Your task to perform on an android device: open app "Adobe Acrobat Reader: Edit PDF" (install if not already installed) Image 0: 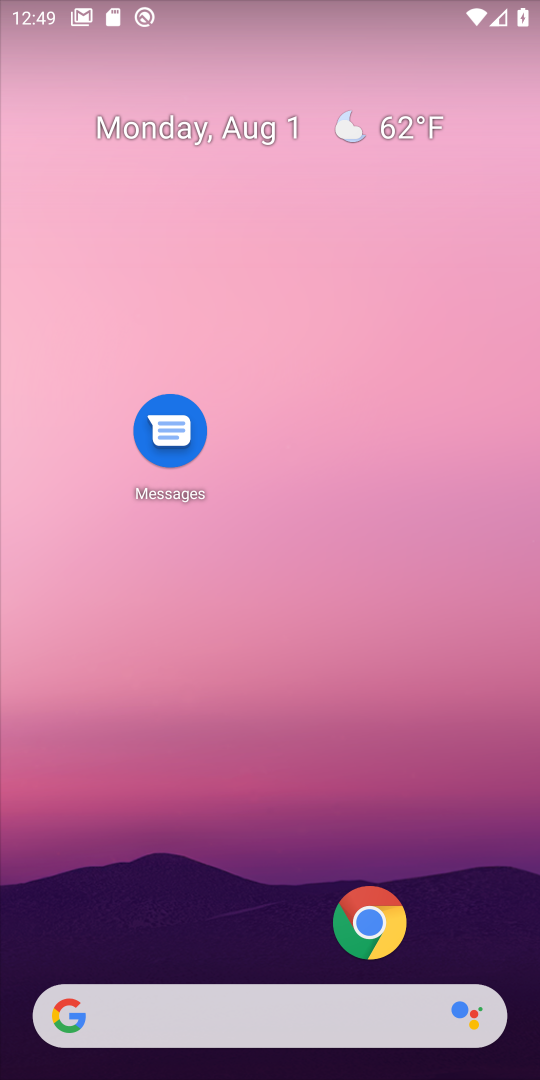
Step 0: drag from (255, 861) to (233, 223)
Your task to perform on an android device: open app "Adobe Acrobat Reader: Edit PDF" (install if not already installed) Image 1: 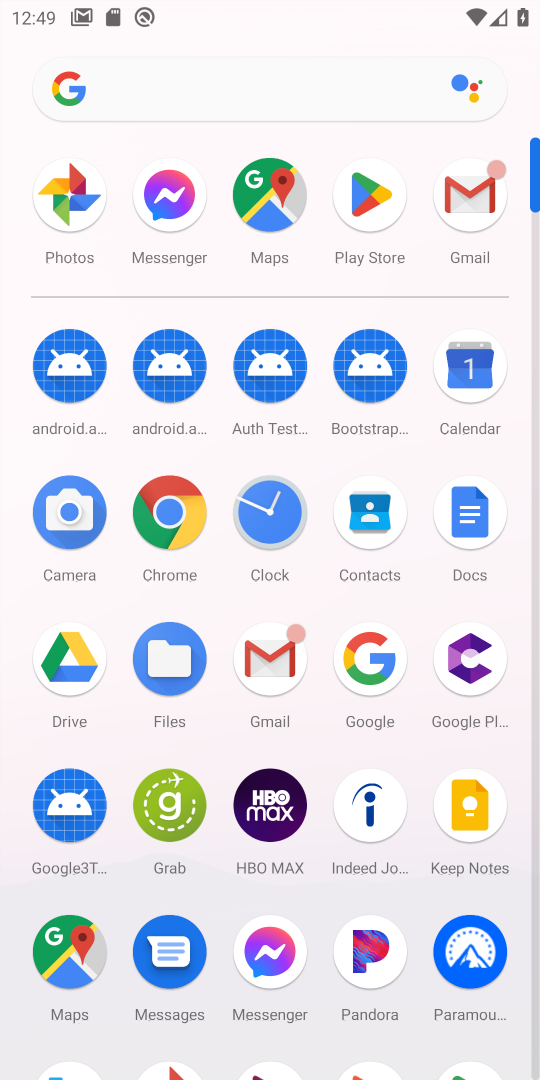
Step 1: click (375, 207)
Your task to perform on an android device: open app "Adobe Acrobat Reader: Edit PDF" (install if not already installed) Image 2: 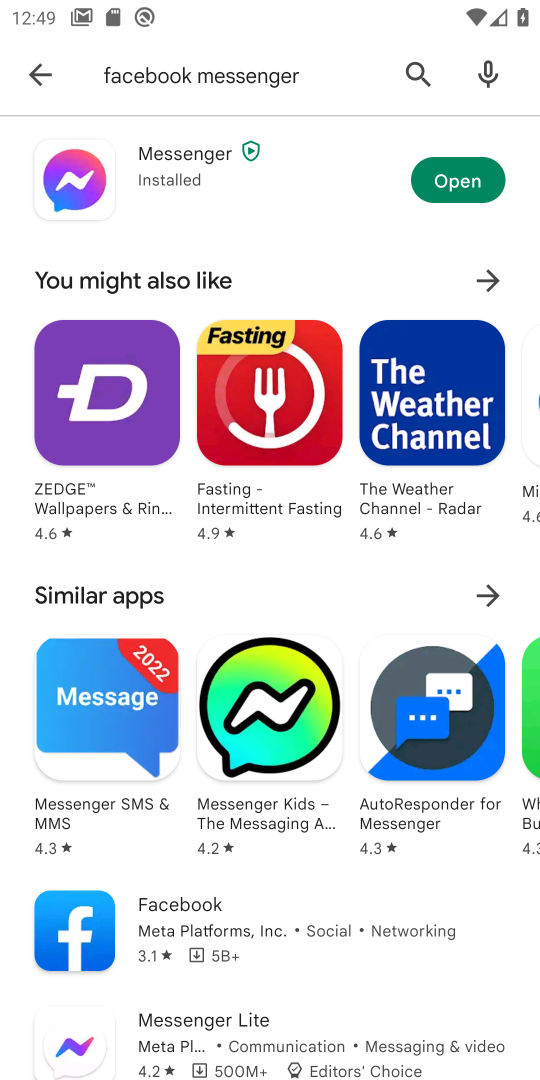
Step 2: click (434, 93)
Your task to perform on an android device: open app "Adobe Acrobat Reader: Edit PDF" (install if not already installed) Image 3: 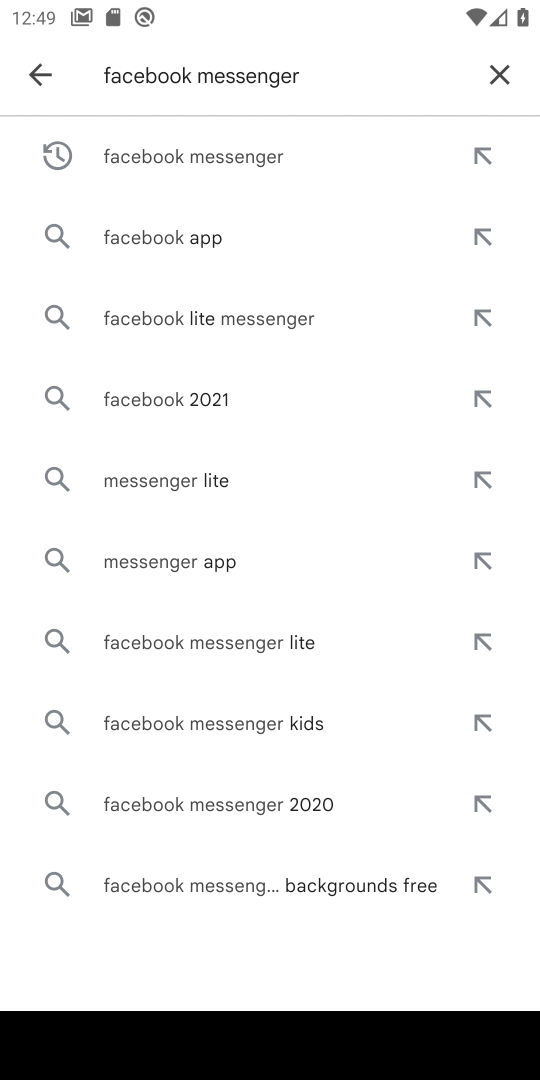
Step 3: click (490, 81)
Your task to perform on an android device: open app "Adobe Acrobat Reader: Edit PDF" (install if not already installed) Image 4: 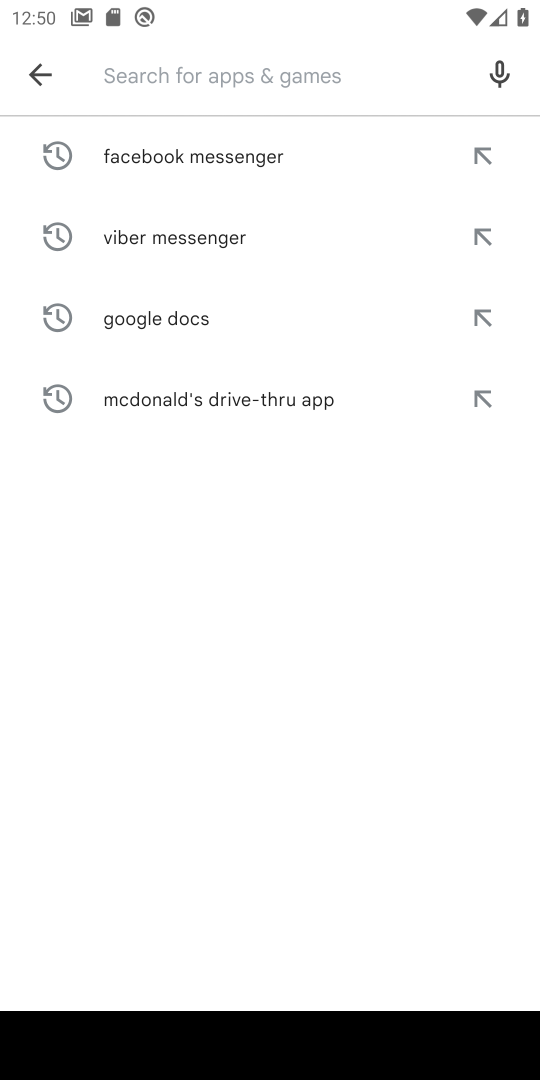
Step 4: type "Adobe Acrobat Reader: Edit PDF"
Your task to perform on an android device: open app "Adobe Acrobat Reader: Edit PDF" (install if not already installed) Image 5: 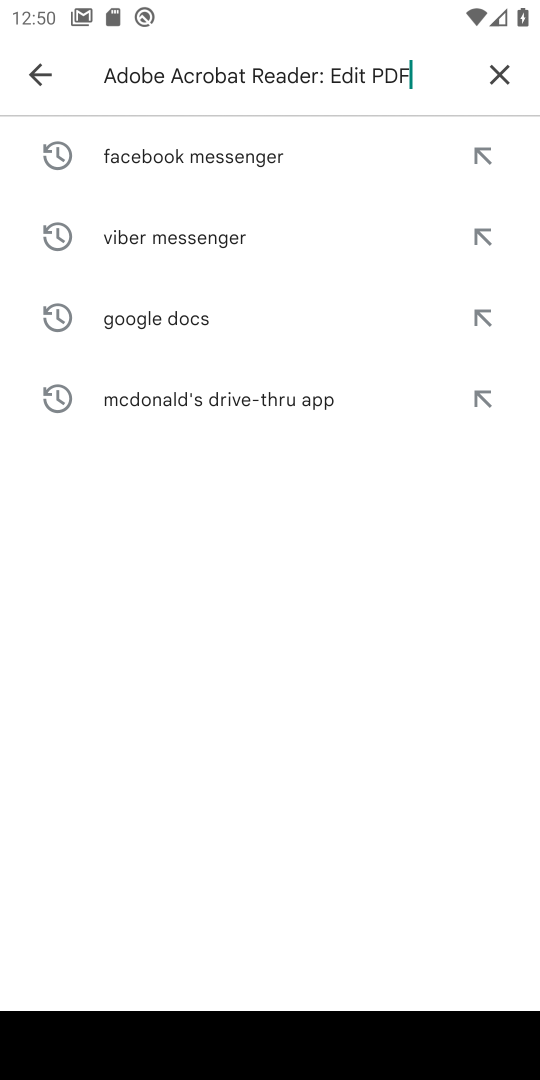
Step 5: type ""
Your task to perform on an android device: open app "Adobe Acrobat Reader: Edit PDF" (install if not already installed) Image 6: 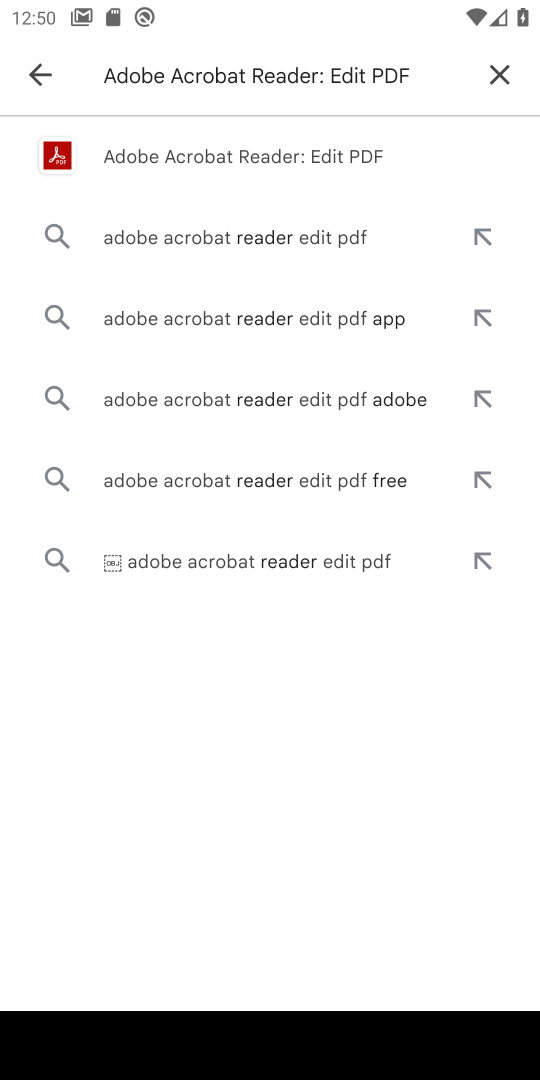
Step 6: click (192, 167)
Your task to perform on an android device: open app "Adobe Acrobat Reader: Edit PDF" (install if not already installed) Image 7: 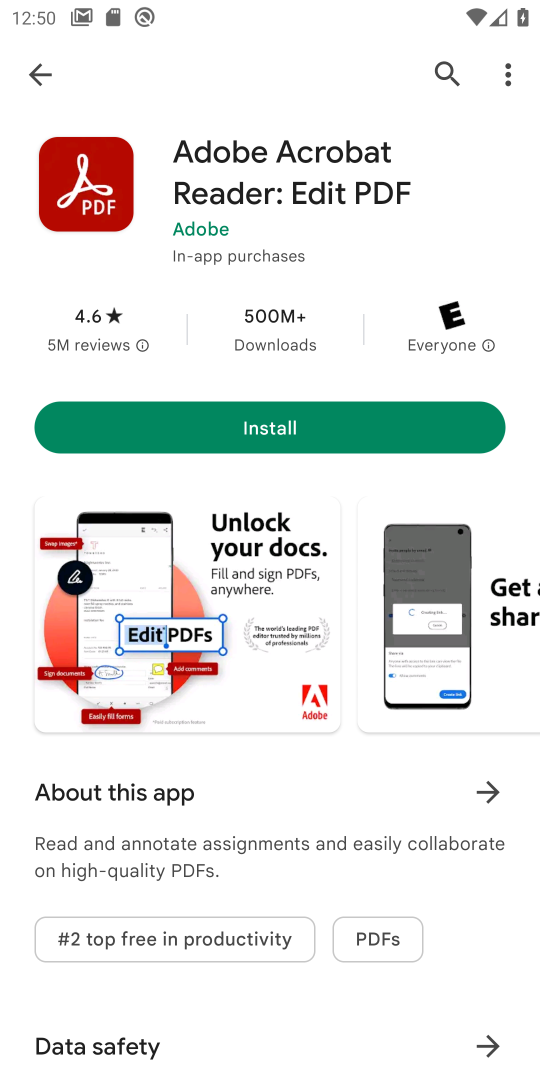
Step 7: click (364, 429)
Your task to perform on an android device: open app "Adobe Acrobat Reader: Edit PDF" (install if not already installed) Image 8: 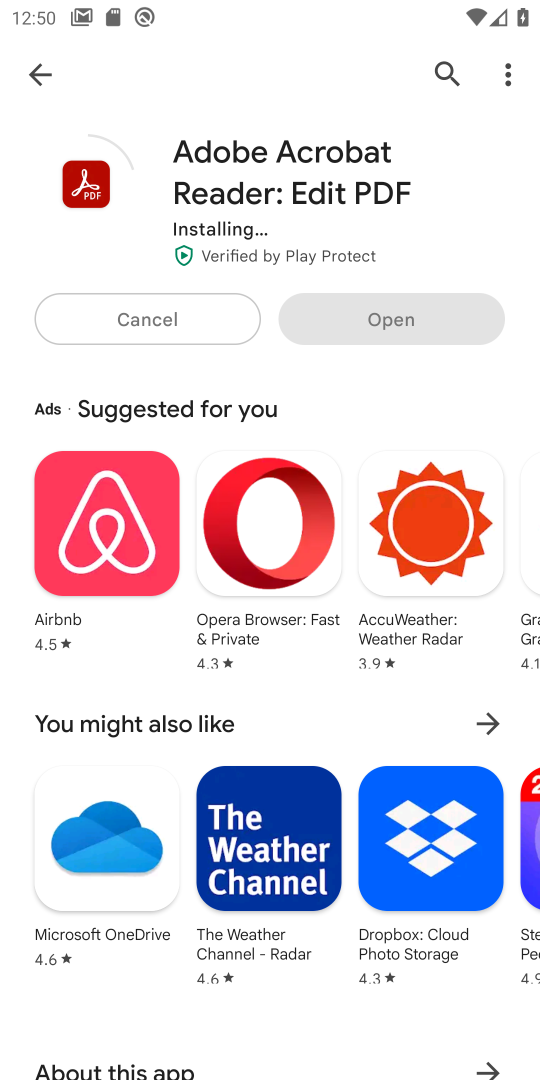
Step 8: click (426, 74)
Your task to perform on an android device: open app "Adobe Acrobat Reader: Edit PDF" (install if not already installed) Image 9: 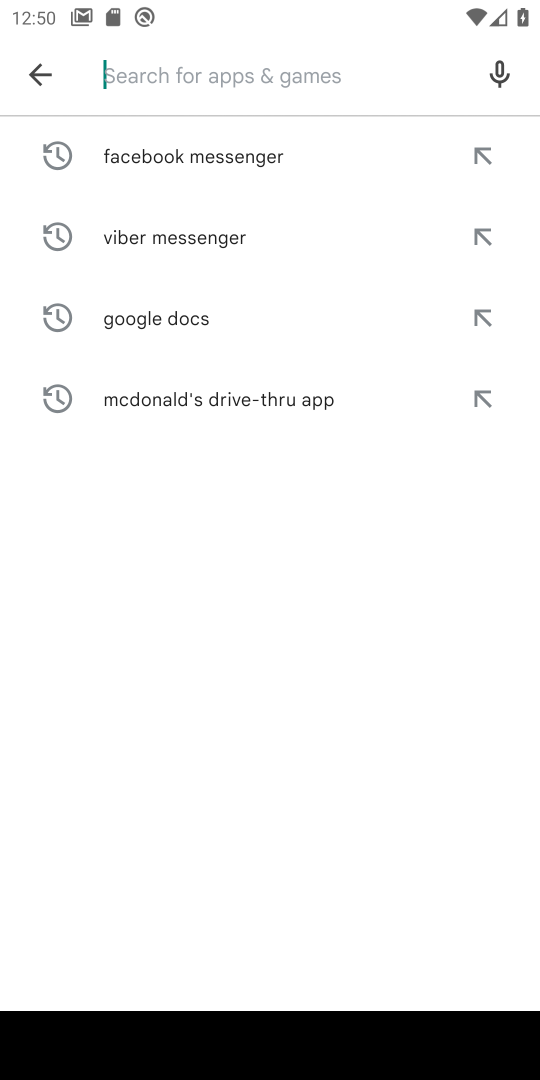
Step 9: click (54, 71)
Your task to perform on an android device: open app "Adobe Acrobat Reader: Edit PDF" (install if not already installed) Image 10: 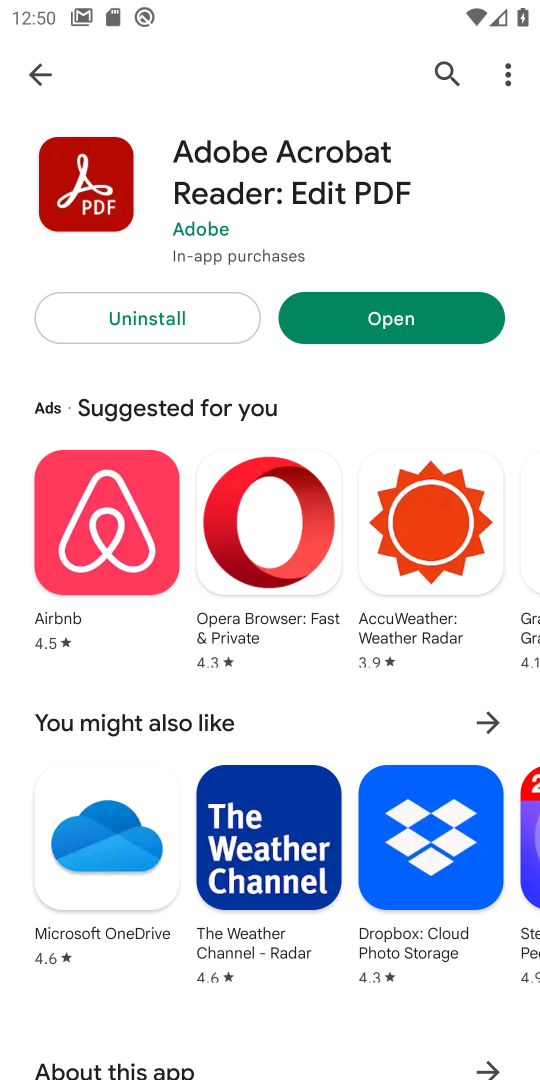
Step 10: click (412, 333)
Your task to perform on an android device: open app "Adobe Acrobat Reader: Edit PDF" (install if not already installed) Image 11: 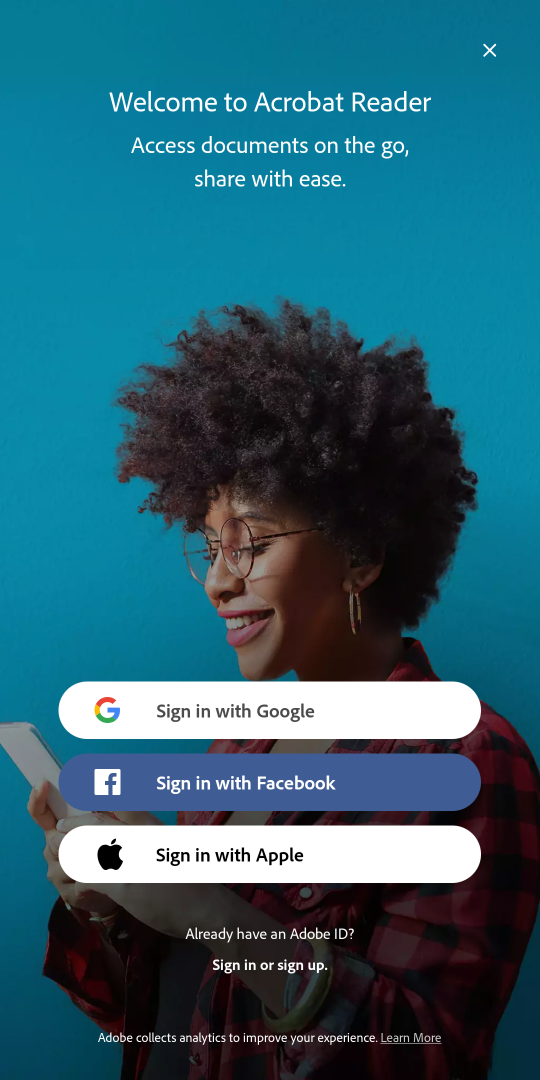
Step 11: task complete